Your task to perform on an android device: Open the Play Movies app and select the watchlist tab. Image 0: 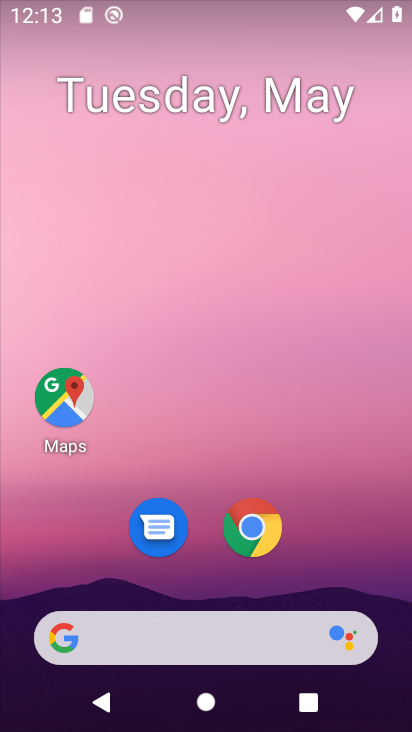
Step 0: drag from (241, 689) to (253, 215)
Your task to perform on an android device: Open the Play Movies app and select the watchlist tab. Image 1: 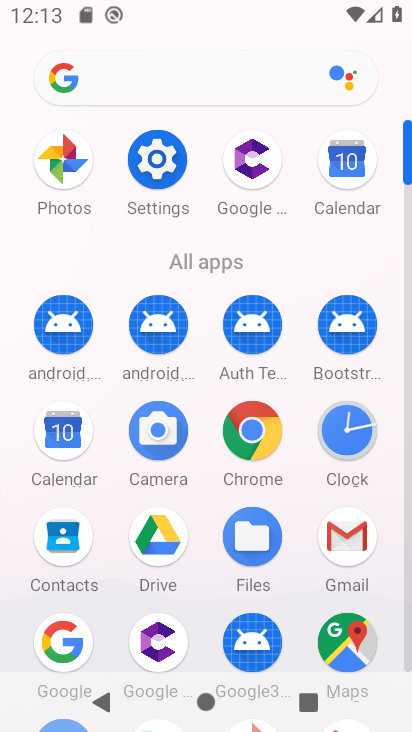
Step 1: drag from (298, 617) to (193, 150)
Your task to perform on an android device: Open the Play Movies app and select the watchlist tab. Image 2: 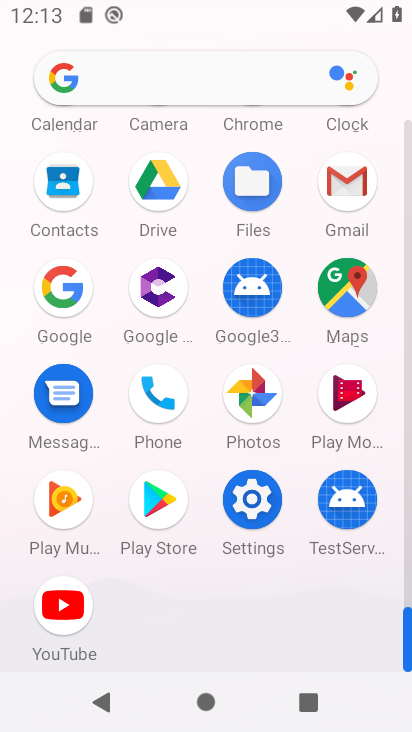
Step 2: click (356, 397)
Your task to perform on an android device: Open the Play Movies app and select the watchlist tab. Image 3: 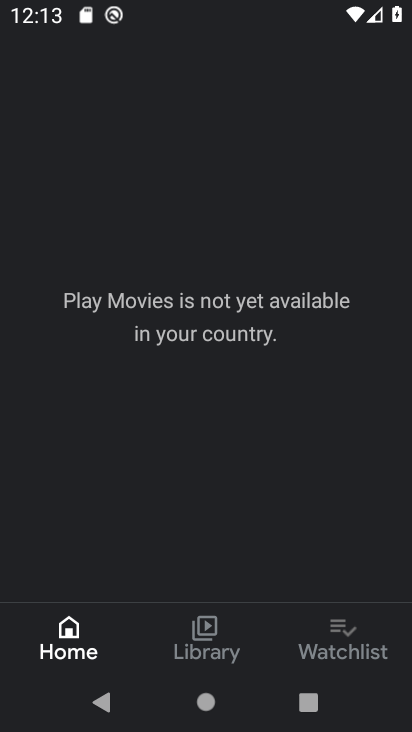
Step 3: click (362, 635)
Your task to perform on an android device: Open the Play Movies app and select the watchlist tab. Image 4: 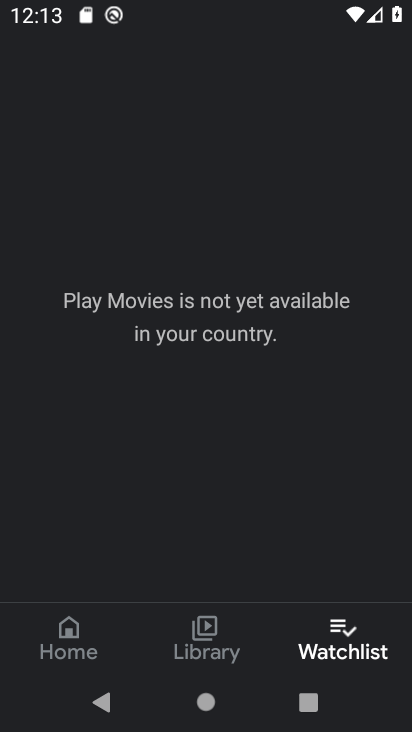
Step 4: task complete